Your task to perform on an android device: turn off location Image 0: 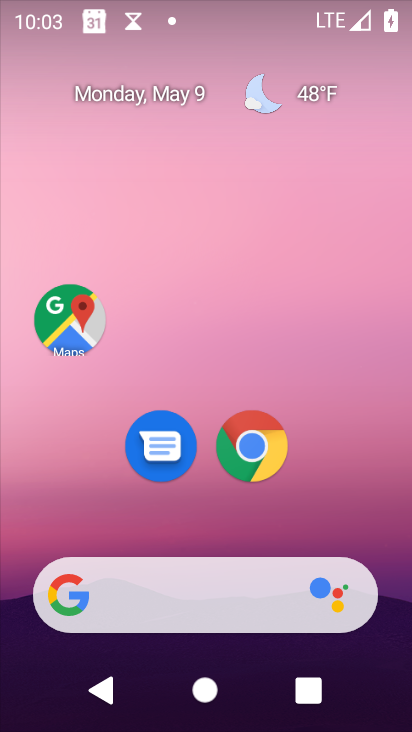
Step 0: drag from (308, 527) to (297, 101)
Your task to perform on an android device: turn off location Image 1: 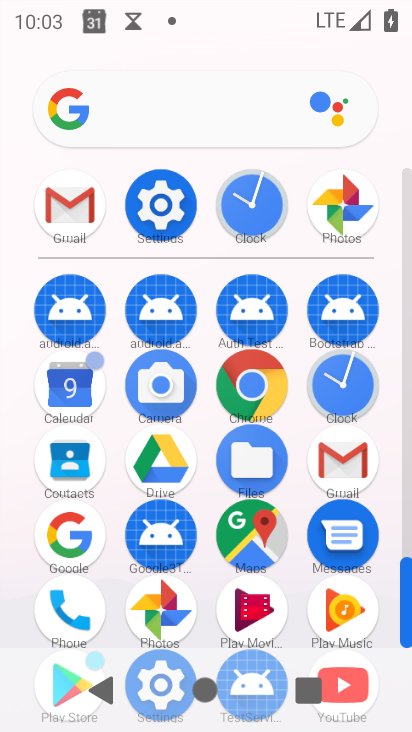
Step 1: click (175, 199)
Your task to perform on an android device: turn off location Image 2: 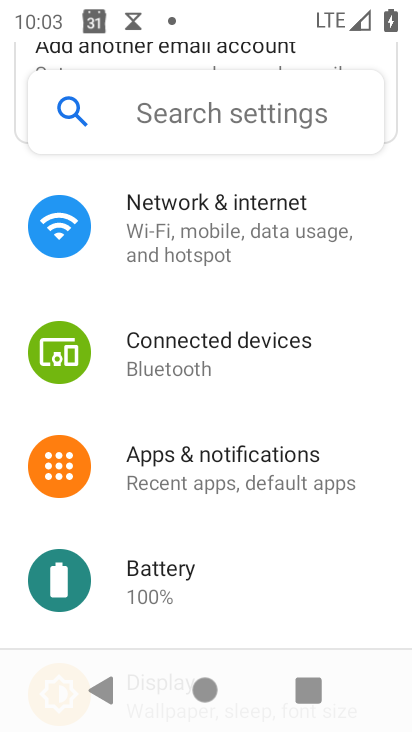
Step 2: drag from (245, 507) to (259, 263)
Your task to perform on an android device: turn off location Image 3: 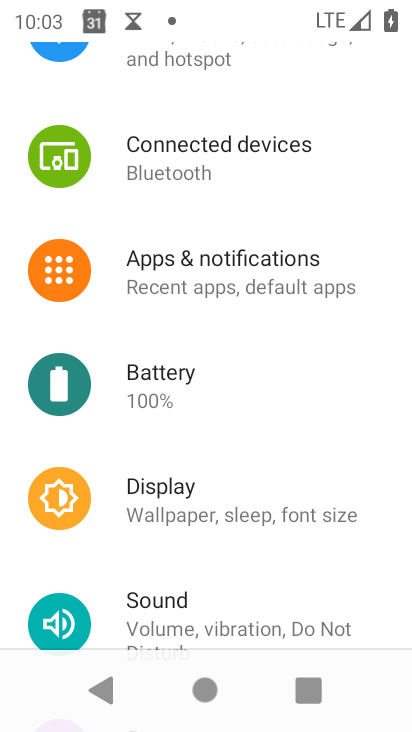
Step 3: drag from (220, 545) to (227, 176)
Your task to perform on an android device: turn off location Image 4: 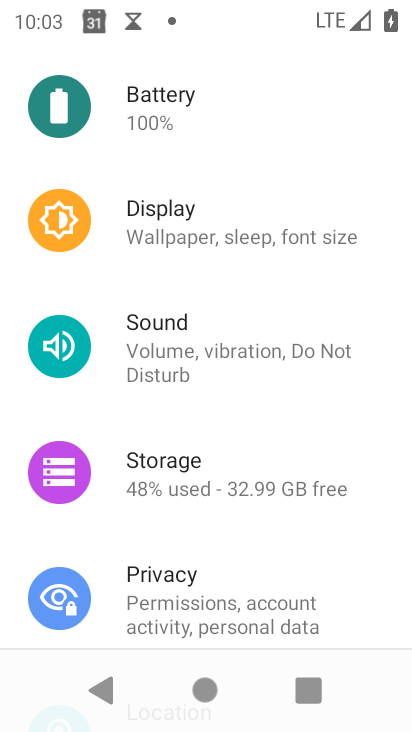
Step 4: drag from (201, 518) to (205, 213)
Your task to perform on an android device: turn off location Image 5: 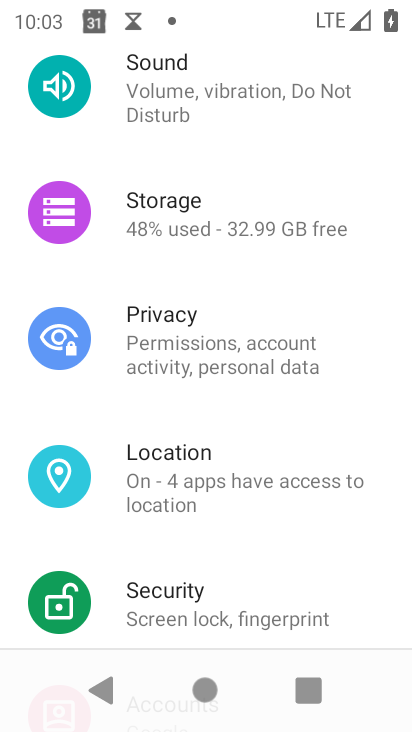
Step 5: click (211, 458)
Your task to perform on an android device: turn off location Image 6: 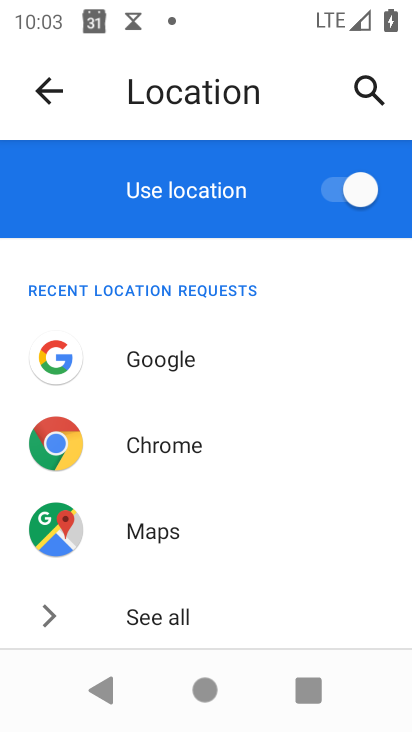
Step 6: click (333, 189)
Your task to perform on an android device: turn off location Image 7: 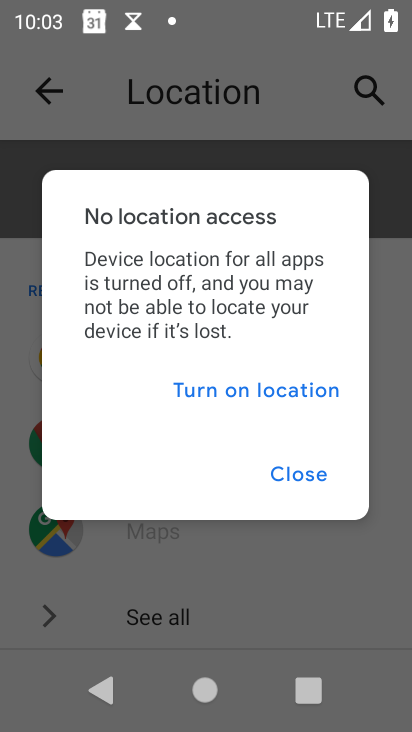
Step 7: click (313, 476)
Your task to perform on an android device: turn off location Image 8: 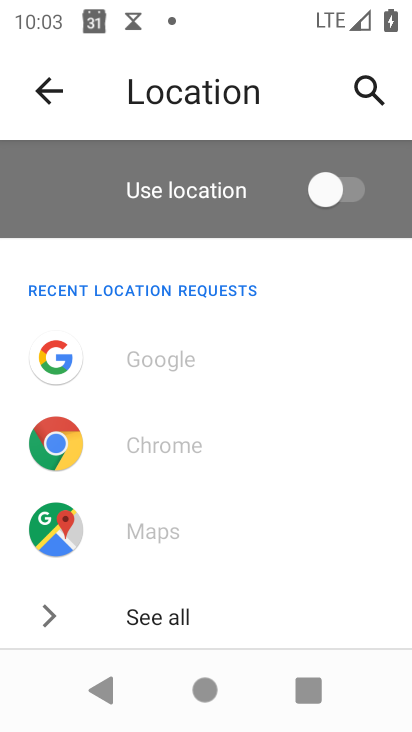
Step 8: task complete